Your task to perform on an android device: read, delete, or share a saved page in the chrome app Image 0: 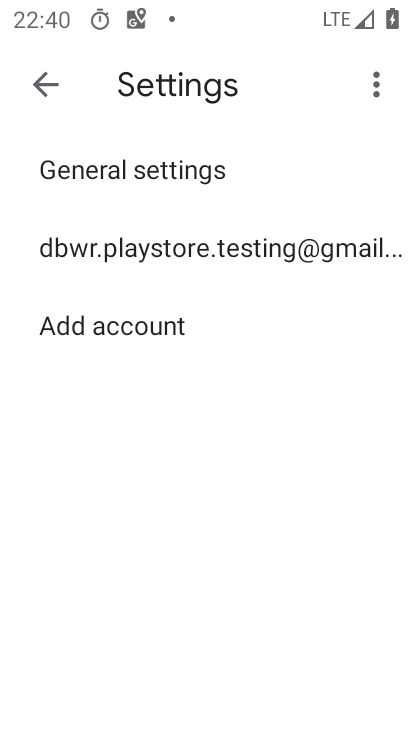
Step 0: press home button
Your task to perform on an android device: read, delete, or share a saved page in the chrome app Image 1: 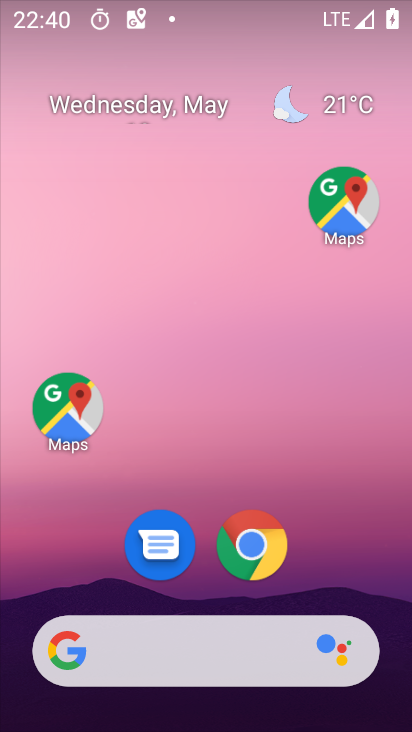
Step 1: click (258, 540)
Your task to perform on an android device: read, delete, or share a saved page in the chrome app Image 2: 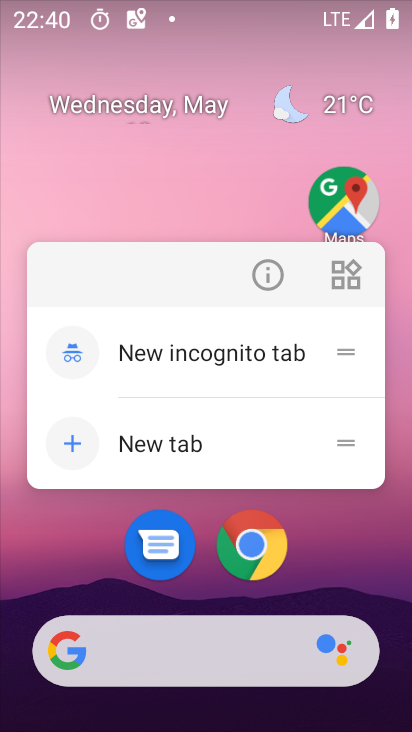
Step 2: click (258, 540)
Your task to perform on an android device: read, delete, or share a saved page in the chrome app Image 3: 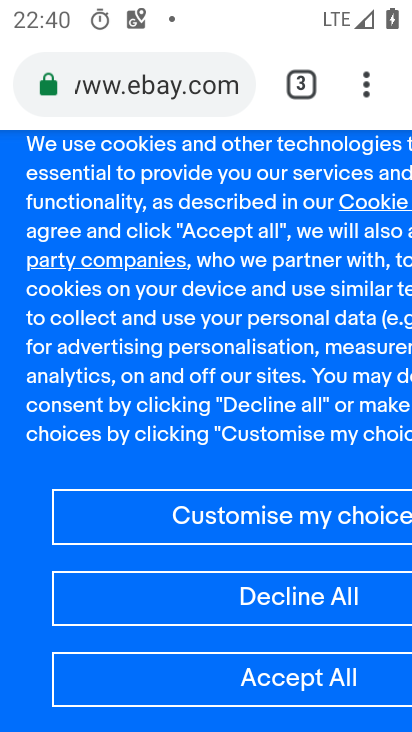
Step 3: click (376, 81)
Your task to perform on an android device: read, delete, or share a saved page in the chrome app Image 4: 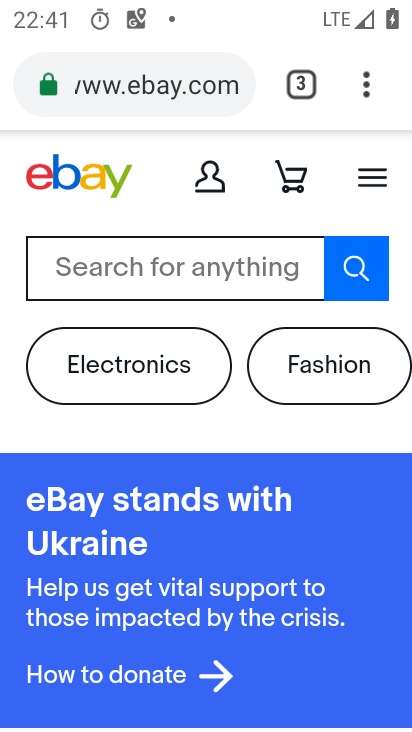
Step 4: click (372, 85)
Your task to perform on an android device: read, delete, or share a saved page in the chrome app Image 5: 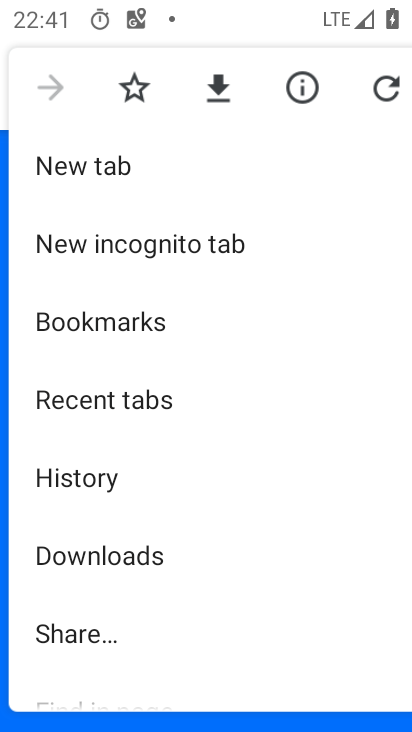
Step 5: click (89, 559)
Your task to perform on an android device: read, delete, or share a saved page in the chrome app Image 6: 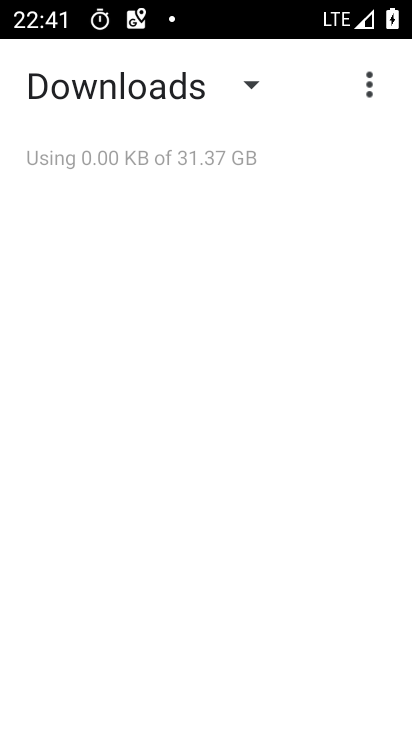
Step 6: click (254, 84)
Your task to perform on an android device: read, delete, or share a saved page in the chrome app Image 7: 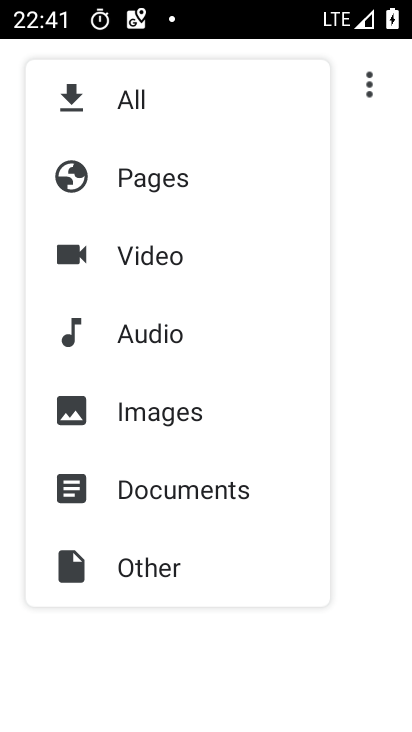
Step 7: click (176, 182)
Your task to perform on an android device: read, delete, or share a saved page in the chrome app Image 8: 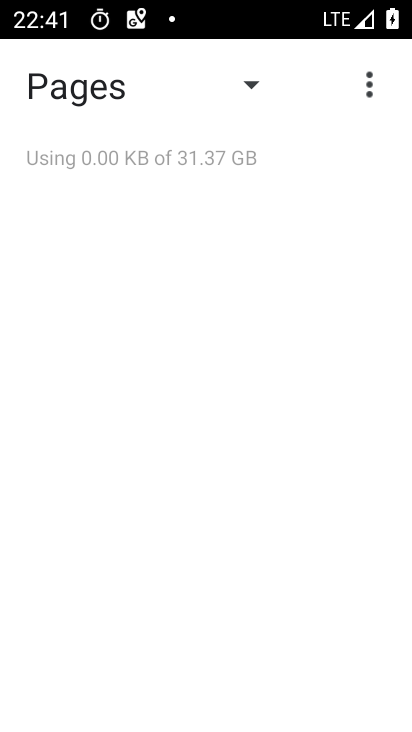
Step 8: task complete